Your task to perform on an android device: Search for sushi restaurants on Maps Image 0: 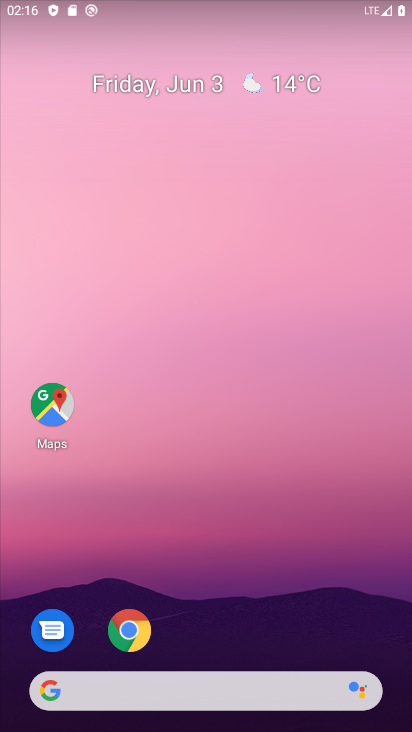
Step 0: click (40, 407)
Your task to perform on an android device: Search for sushi restaurants on Maps Image 1: 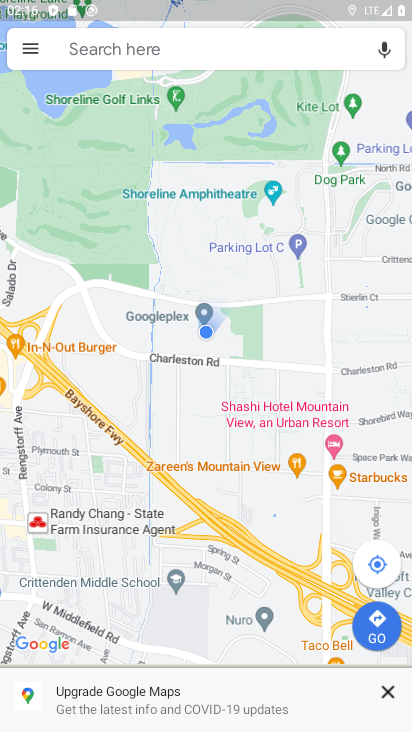
Step 1: click (77, 46)
Your task to perform on an android device: Search for sushi restaurants on Maps Image 2: 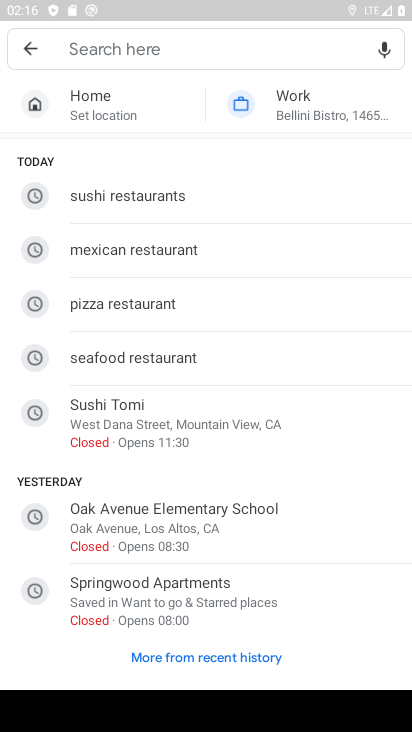
Step 2: type "sushi restaurants"
Your task to perform on an android device: Search for sushi restaurants on Maps Image 3: 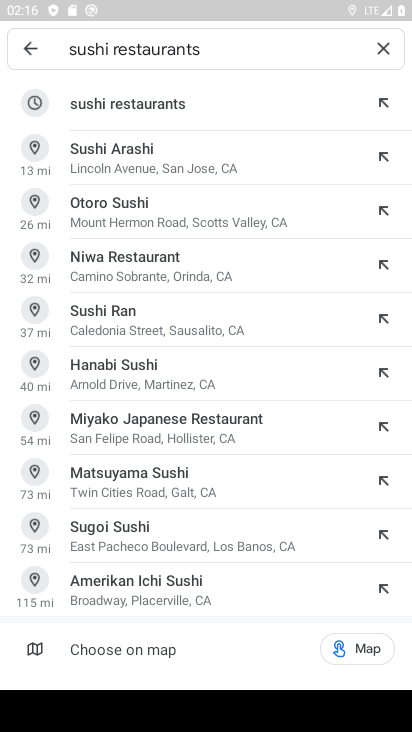
Step 3: click (118, 109)
Your task to perform on an android device: Search for sushi restaurants on Maps Image 4: 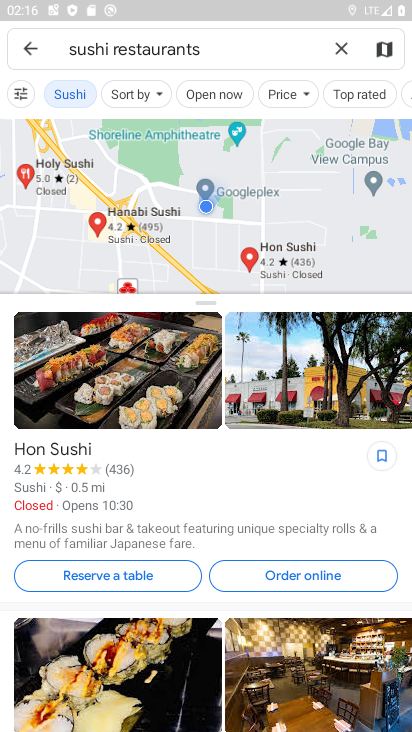
Step 4: task complete